Your task to perform on an android device: Empty the shopping cart on bestbuy. Image 0: 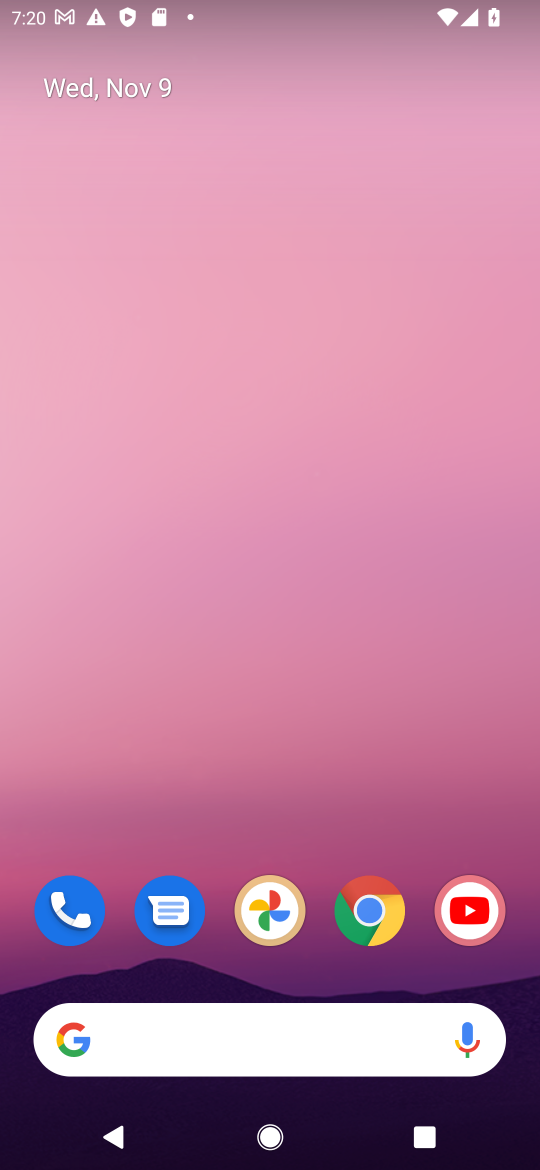
Step 0: click (380, 914)
Your task to perform on an android device: Empty the shopping cart on bestbuy. Image 1: 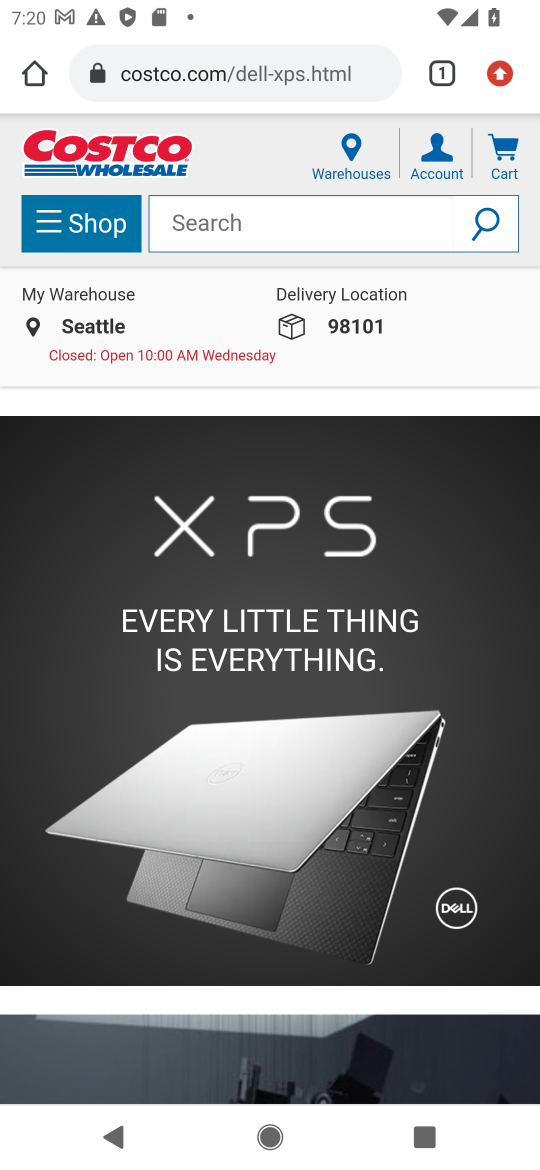
Step 1: click (245, 77)
Your task to perform on an android device: Empty the shopping cart on bestbuy. Image 2: 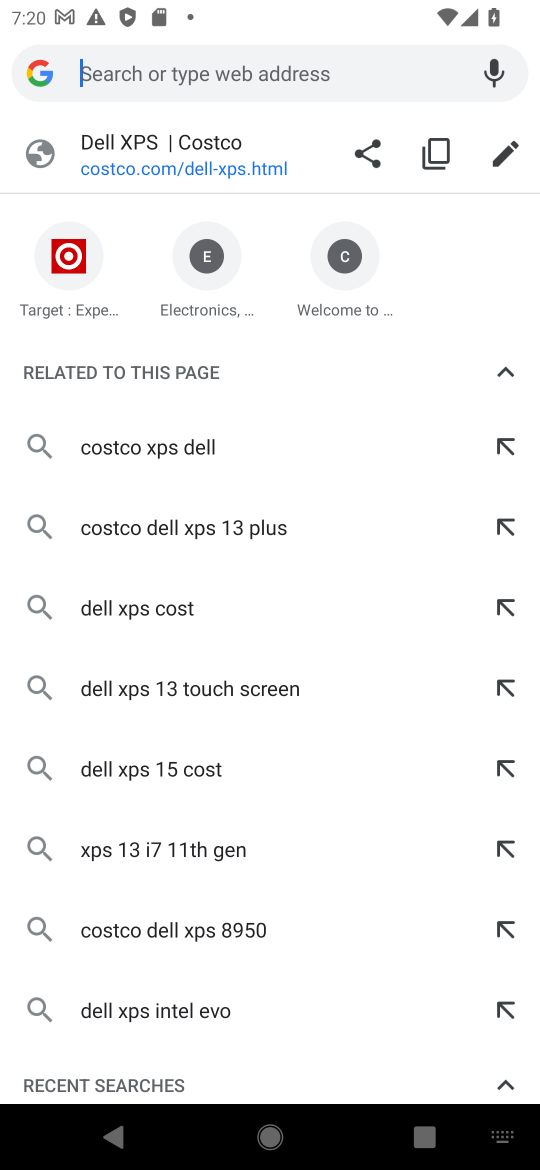
Step 2: type "bestbuy.com"
Your task to perform on an android device: Empty the shopping cart on bestbuy. Image 3: 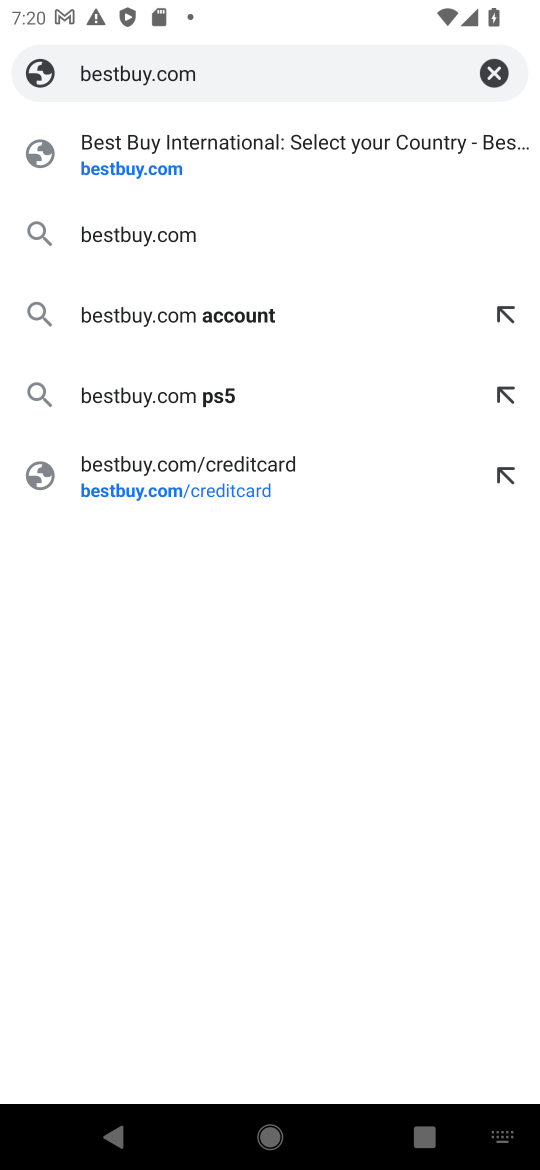
Step 3: click (139, 171)
Your task to perform on an android device: Empty the shopping cart on bestbuy. Image 4: 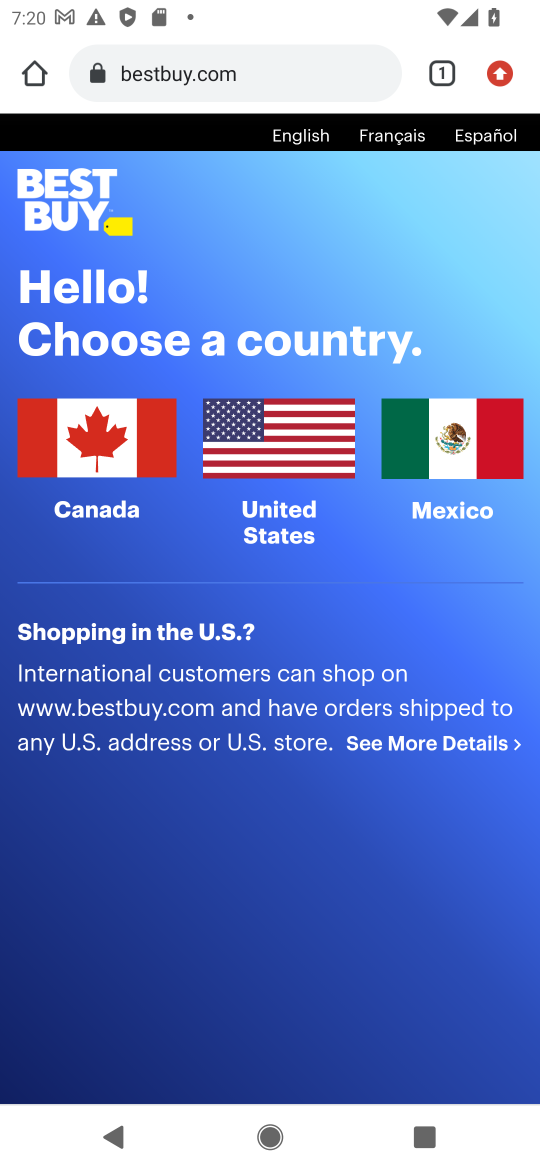
Step 4: click (284, 458)
Your task to perform on an android device: Empty the shopping cart on bestbuy. Image 5: 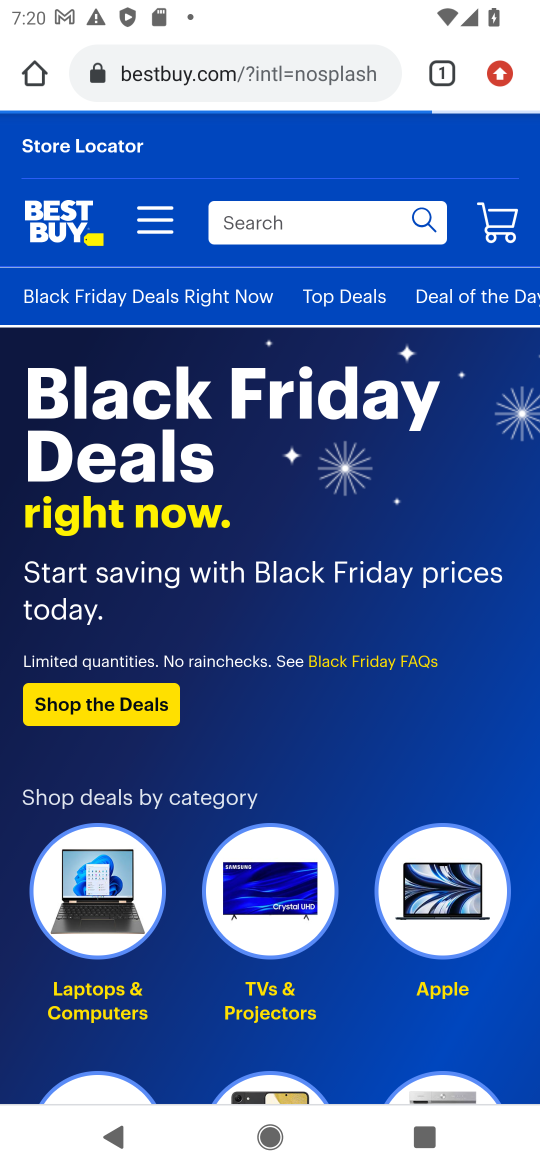
Step 5: click (506, 215)
Your task to perform on an android device: Empty the shopping cart on bestbuy. Image 6: 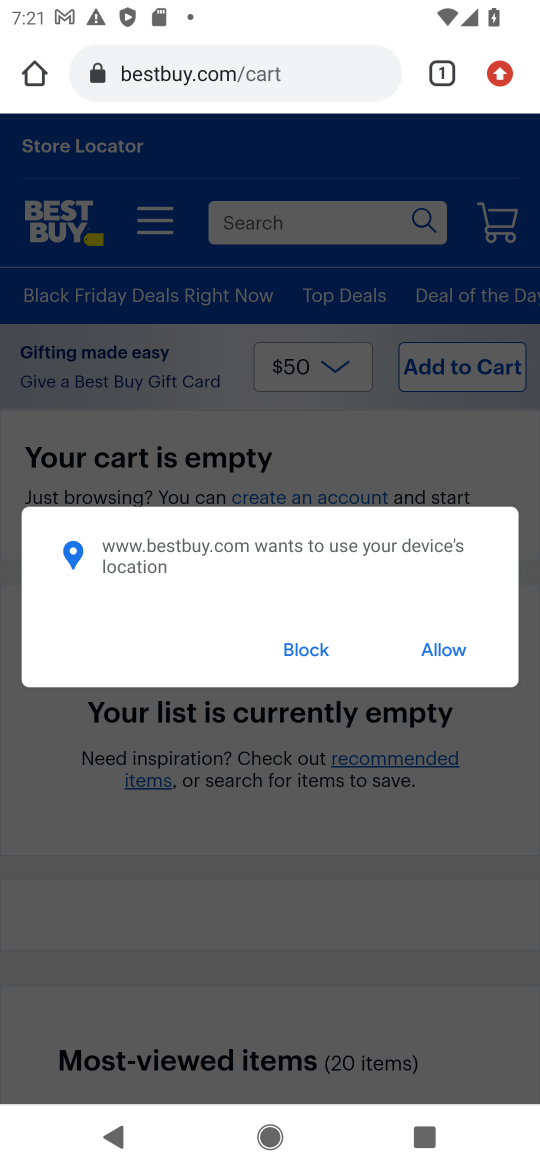
Step 6: task complete